Your task to perform on an android device: See recent photos Image 0: 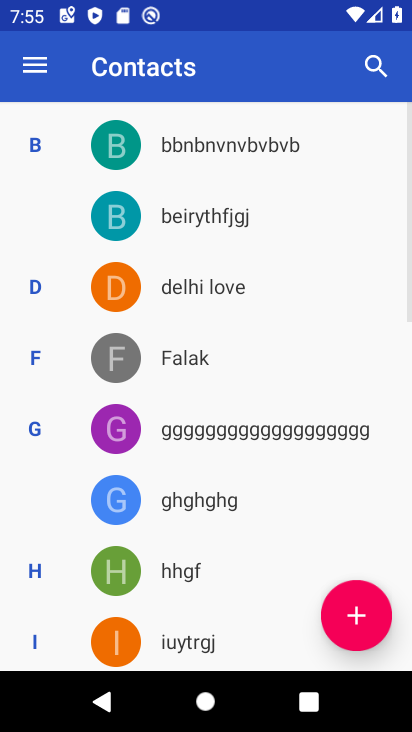
Step 0: press home button
Your task to perform on an android device: See recent photos Image 1: 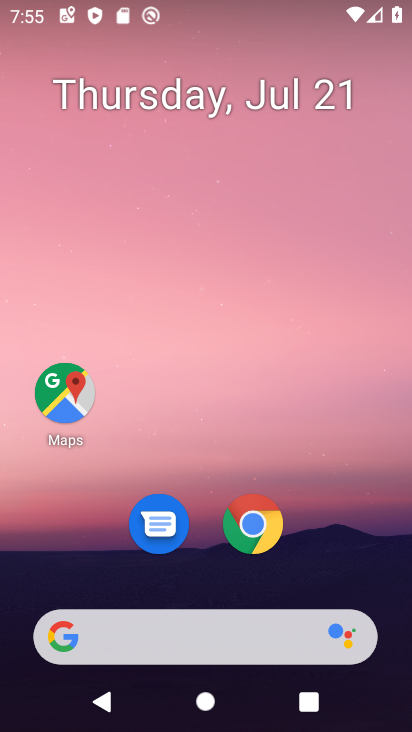
Step 1: drag from (211, 592) to (349, 153)
Your task to perform on an android device: See recent photos Image 2: 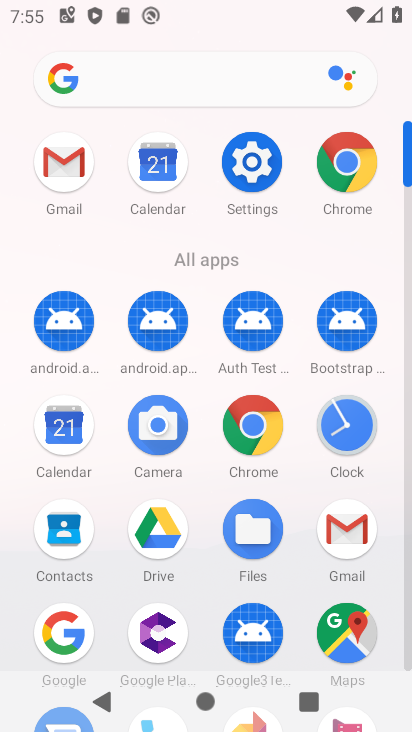
Step 2: drag from (193, 579) to (351, 88)
Your task to perform on an android device: See recent photos Image 3: 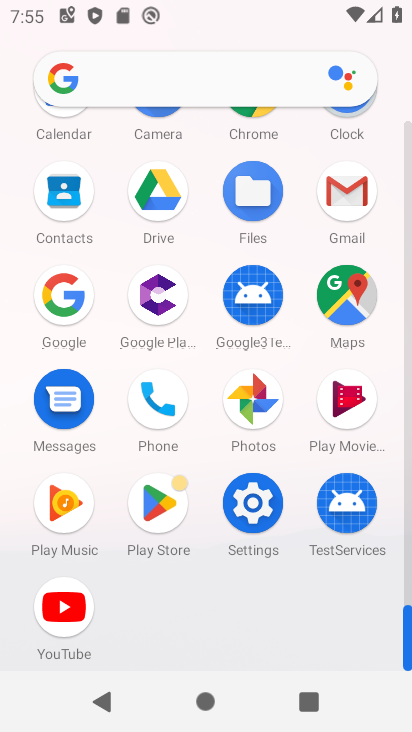
Step 3: click (256, 408)
Your task to perform on an android device: See recent photos Image 4: 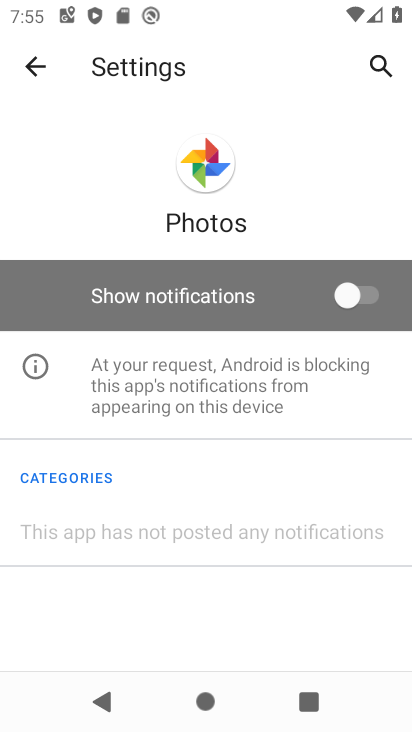
Step 4: click (34, 65)
Your task to perform on an android device: See recent photos Image 5: 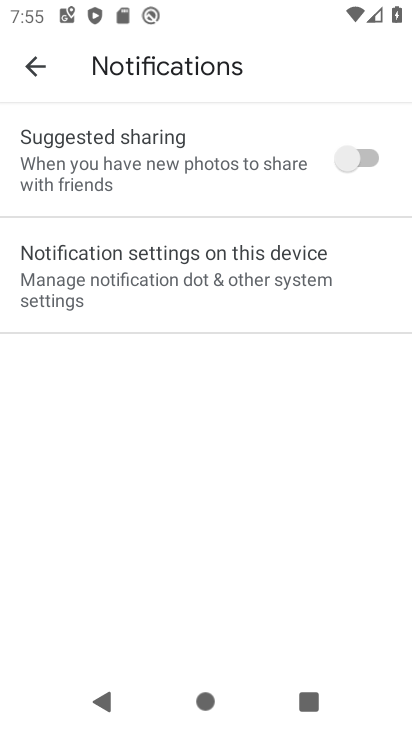
Step 5: click (31, 63)
Your task to perform on an android device: See recent photos Image 6: 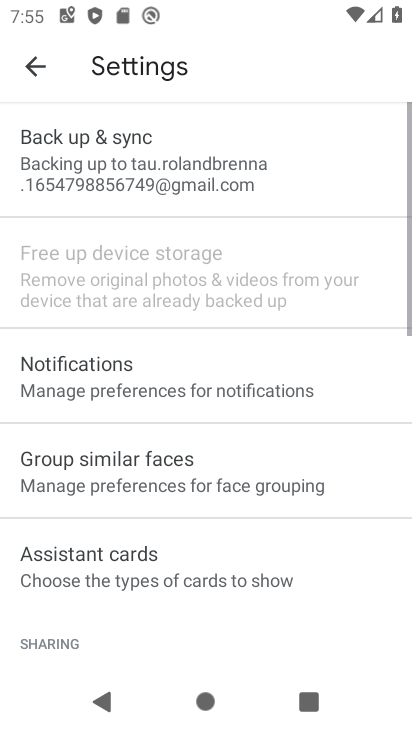
Step 6: click (31, 63)
Your task to perform on an android device: See recent photos Image 7: 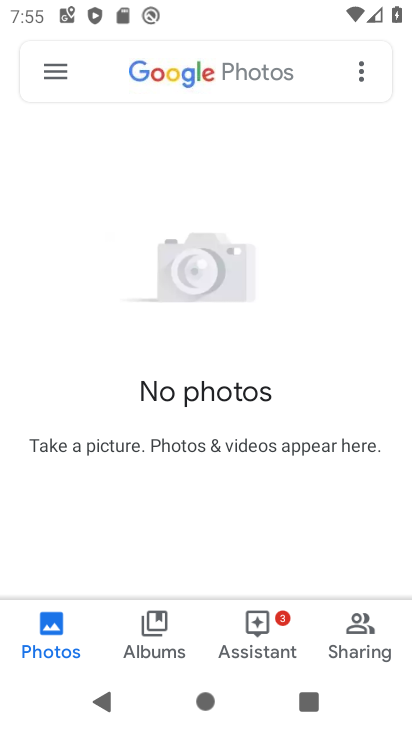
Step 7: click (158, 646)
Your task to perform on an android device: See recent photos Image 8: 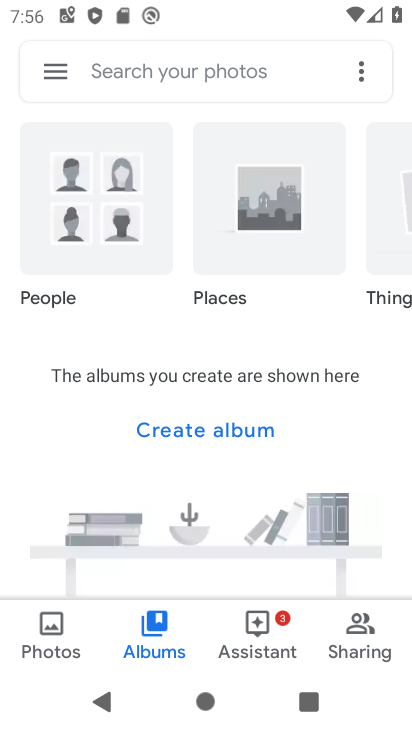
Step 8: task complete